Your task to perform on an android device: Go to Wikipedia Image 0: 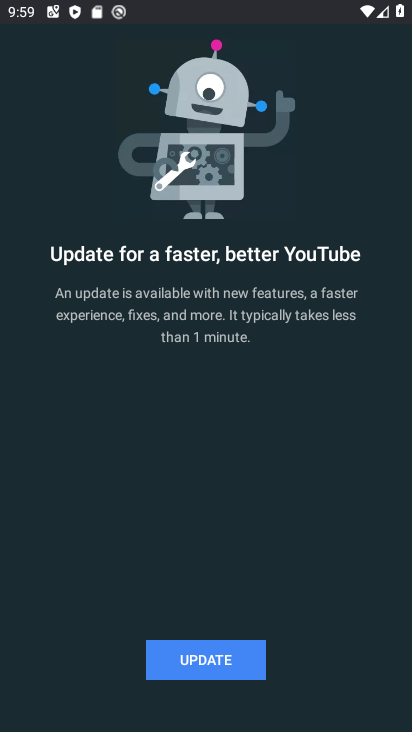
Step 0: press home button
Your task to perform on an android device: Go to Wikipedia Image 1: 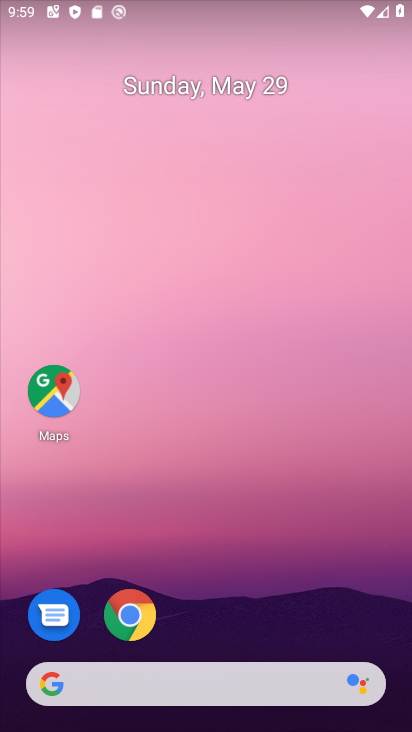
Step 1: click (113, 633)
Your task to perform on an android device: Go to Wikipedia Image 2: 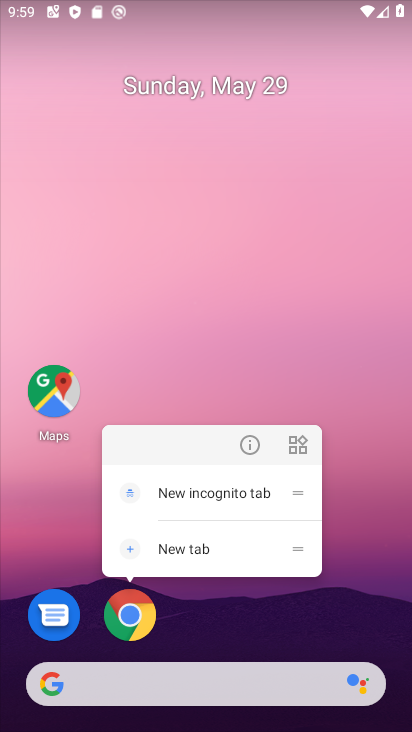
Step 2: click (134, 609)
Your task to perform on an android device: Go to Wikipedia Image 3: 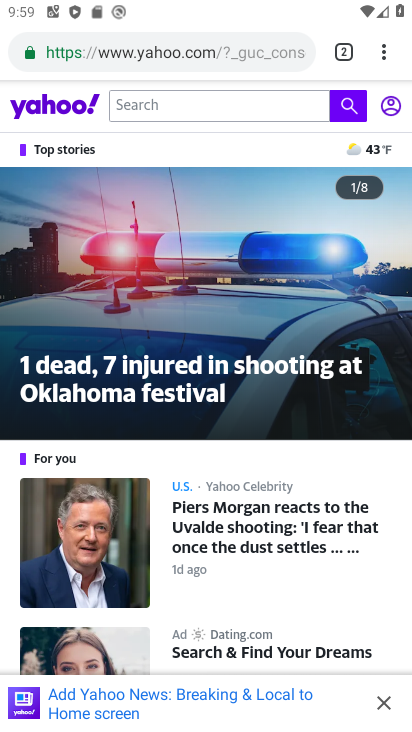
Step 3: click (335, 45)
Your task to perform on an android device: Go to Wikipedia Image 4: 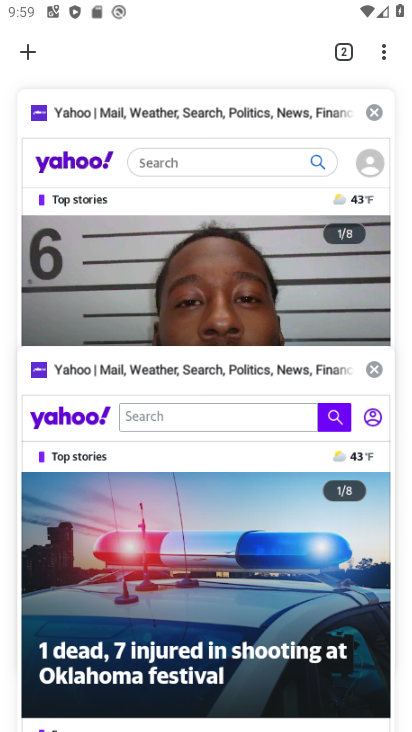
Step 4: click (26, 55)
Your task to perform on an android device: Go to Wikipedia Image 5: 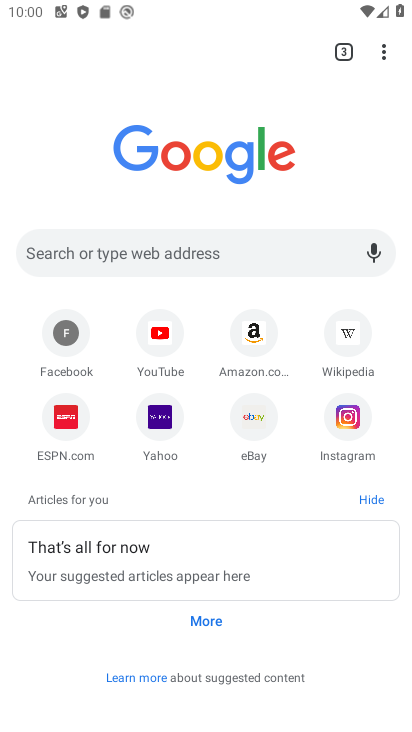
Step 5: click (353, 326)
Your task to perform on an android device: Go to Wikipedia Image 6: 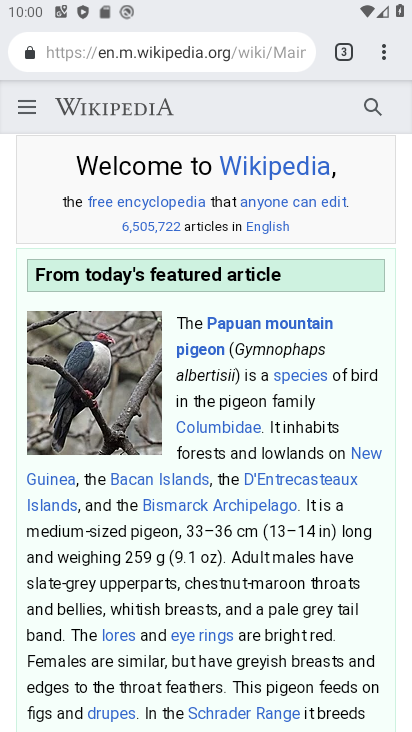
Step 6: task complete